Your task to perform on an android device: turn notification dots on Image 0: 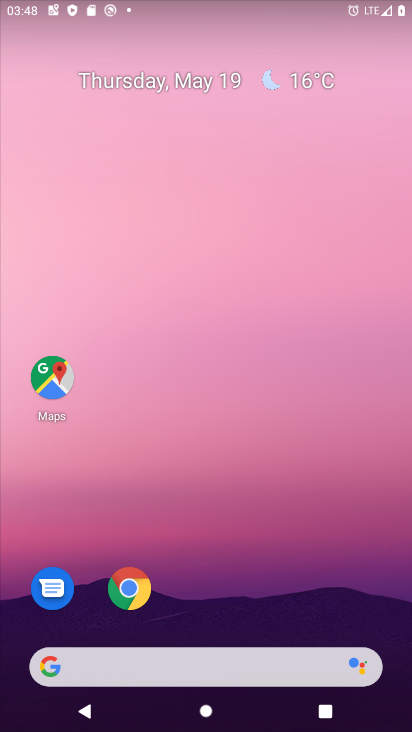
Step 0: drag from (196, 599) to (204, 130)
Your task to perform on an android device: turn notification dots on Image 1: 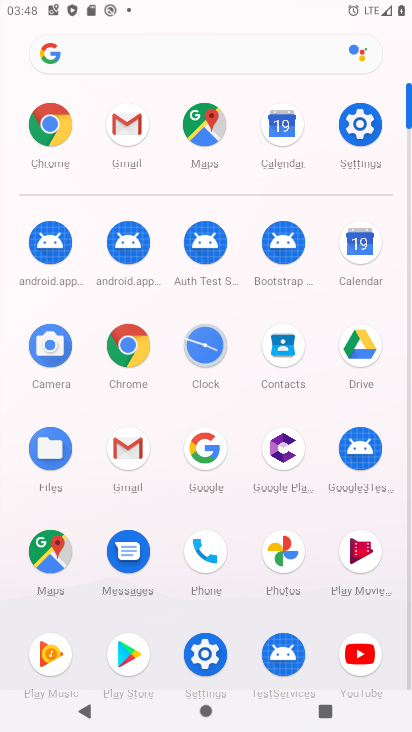
Step 1: click (352, 129)
Your task to perform on an android device: turn notification dots on Image 2: 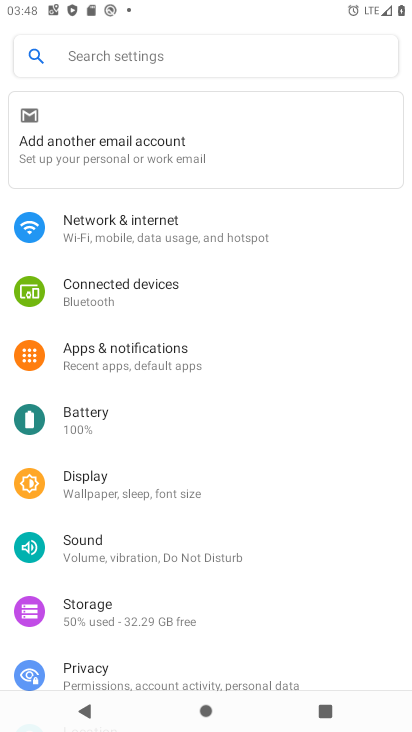
Step 2: click (161, 344)
Your task to perform on an android device: turn notification dots on Image 3: 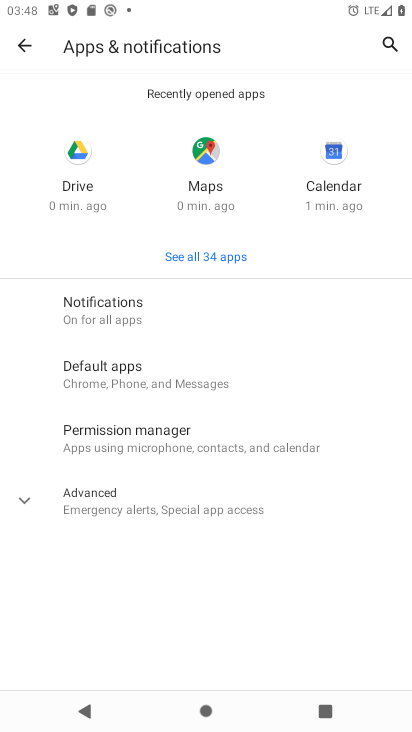
Step 3: click (137, 291)
Your task to perform on an android device: turn notification dots on Image 4: 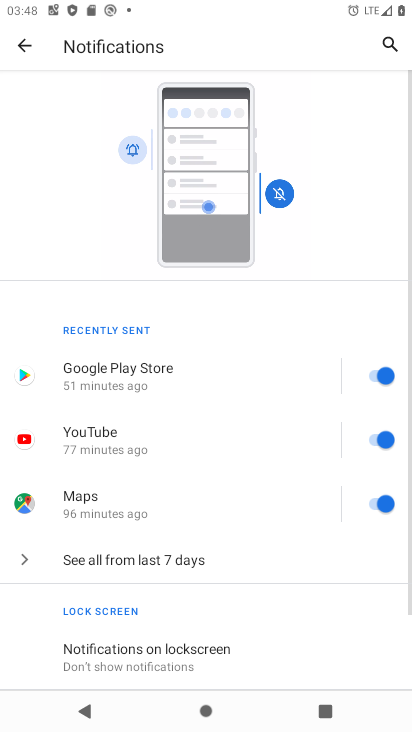
Step 4: drag from (254, 656) to (283, 225)
Your task to perform on an android device: turn notification dots on Image 5: 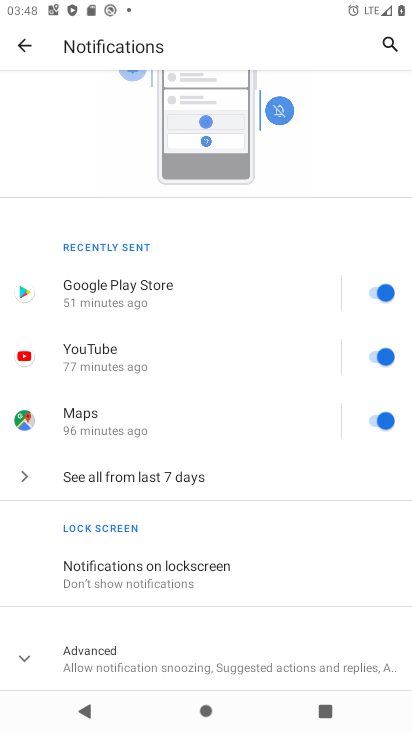
Step 5: click (174, 661)
Your task to perform on an android device: turn notification dots on Image 6: 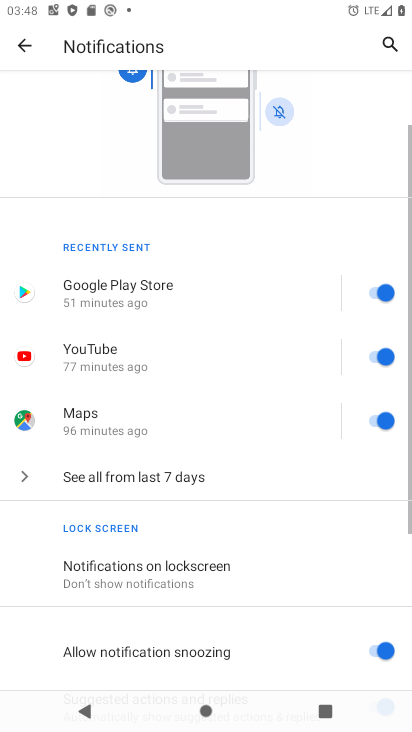
Step 6: drag from (218, 602) to (260, 192)
Your task to perform on an android device: turn notification dots on Image 7: 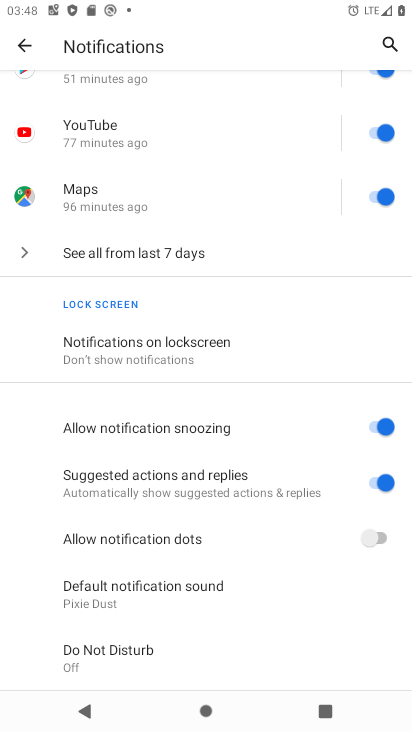
Step 7: click (379, 534)
Your task to perform on an android device: turn notification dots on Image 8: 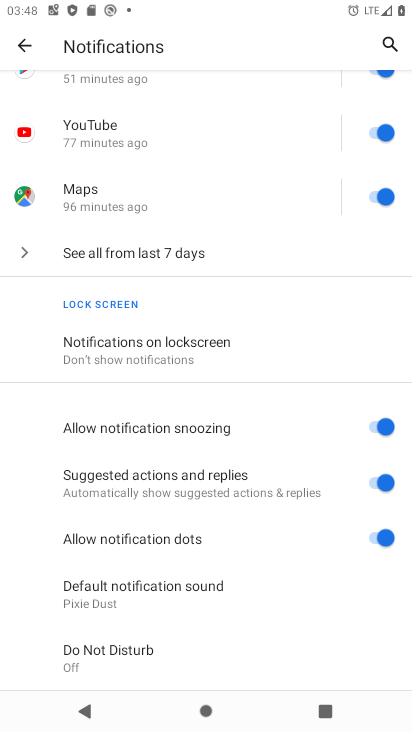
Step 8: task complete